Your task to perform on an android device: What's on my calendar today? Image 0: 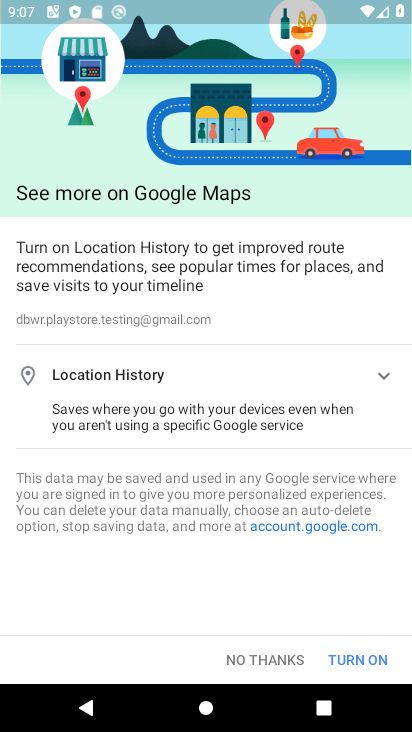
Step 0: press home button
Your task to perform on an android device: What's on my calendar today? Image 1: 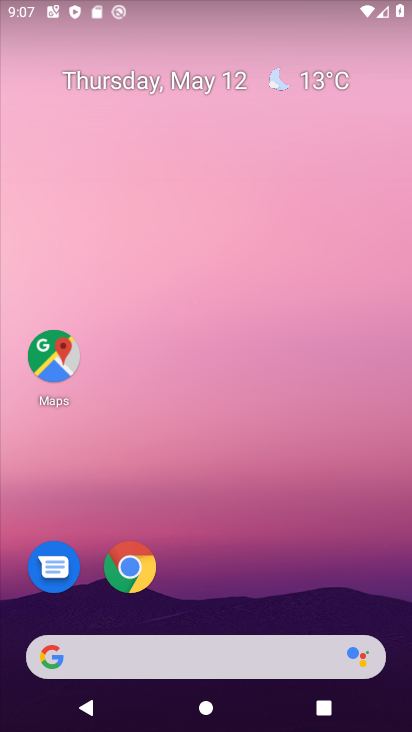
Step 1: drag from (230, 606) to (203, 123)
Your task to perform on an android device: What's on my calendar today? Image 2: 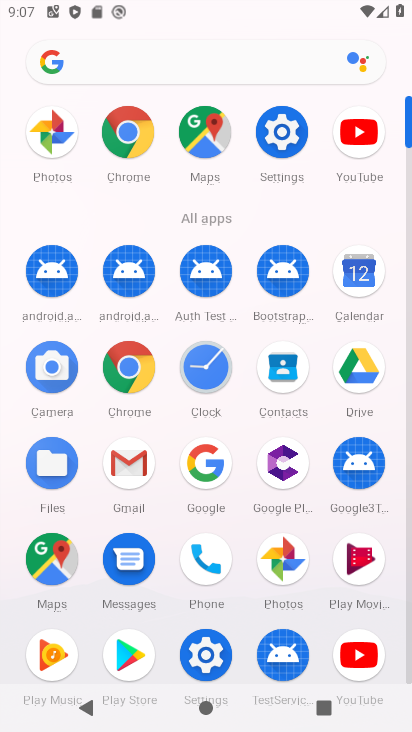
Step 2: click (358, 269)
Your task to perform on an android device: What's on my calendar today? Image 3: 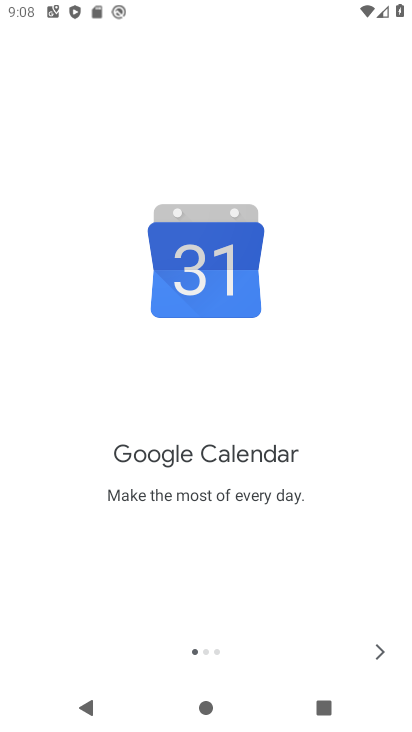
Step 3: click (379, 646)
Your task to perform on an android device: What's on my calendar today? Image 4: 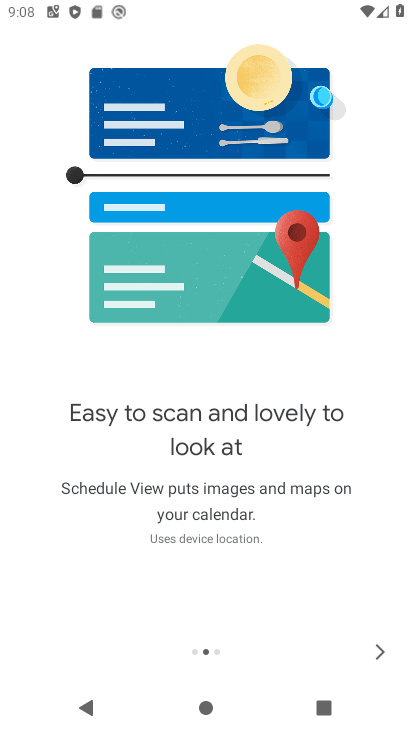
Step 4: click (380, 649)
Your task to perform on an android device: What's on my calendar today? Image 5: 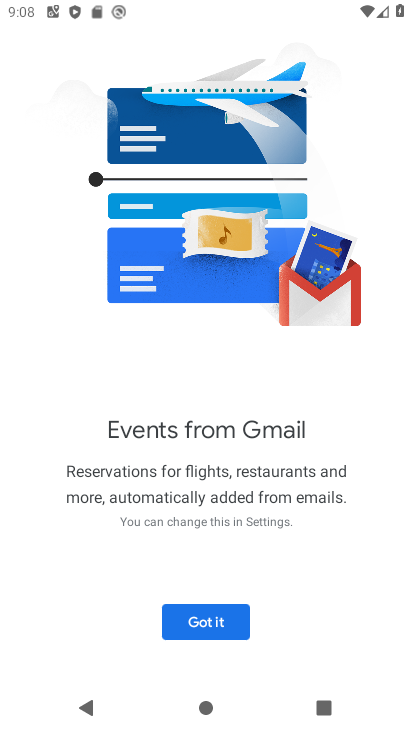
Step 5: click (206, 616)
Your task to perform on an android device: What's on my calendar today? Image 6: 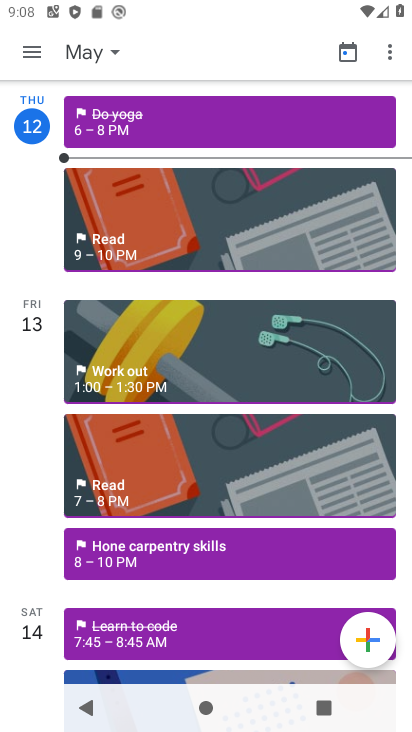
Step 6: click (41, 209)
Your task to perform on an android device: What's on my calendar today? Image 7: 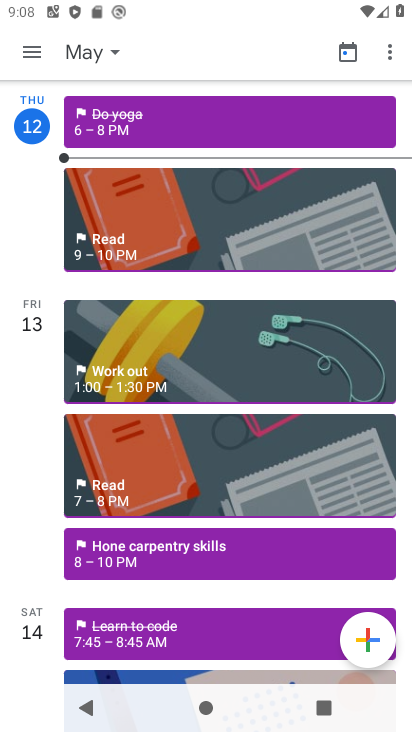
Step 7: click (24, 132)
Your task to perform on an android device: What's on my calendar today? Image 8: 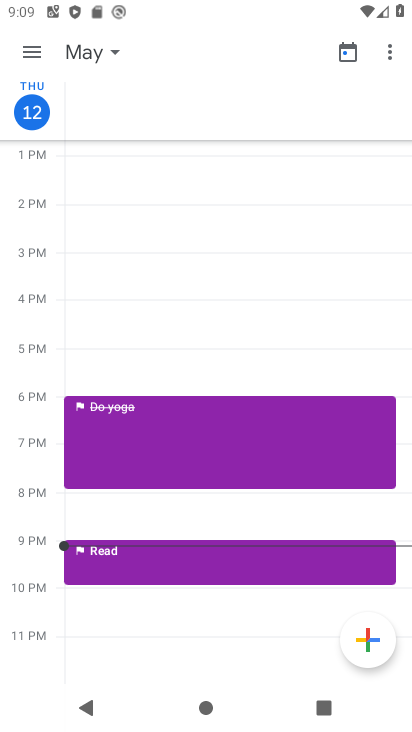
Step 8: task complete